Your task to perform on an android device: Show the shopping cart on amazon. Search for "asus rog" on amazon, select the first entry, add it to the cart, then select checkout. Image 0: 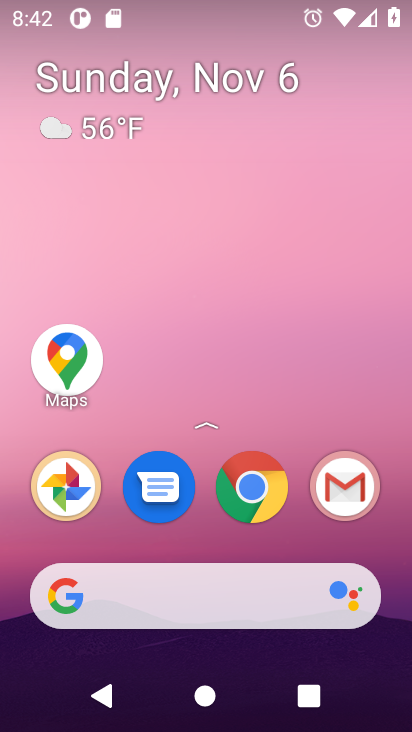
Step 0: click (230, 464)
Your task to perform on an android device: Show the shopping cart on amazon. Search for "asus rog" on amazon, select the first entry, add it to the cart, then select checkout. Image 1: 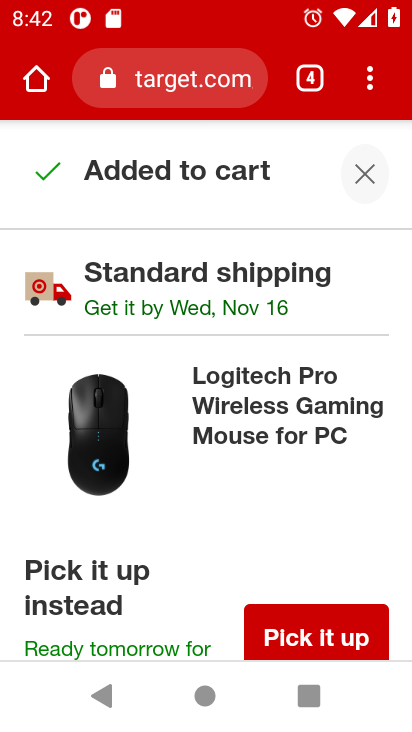
Step 1: click (189, 98)
Your task to perform on an android device: Show the shopping cart on amazon. Search for "asus rog" on amazon, select the first entry, add it to the cart, then select checkout. Image 2: 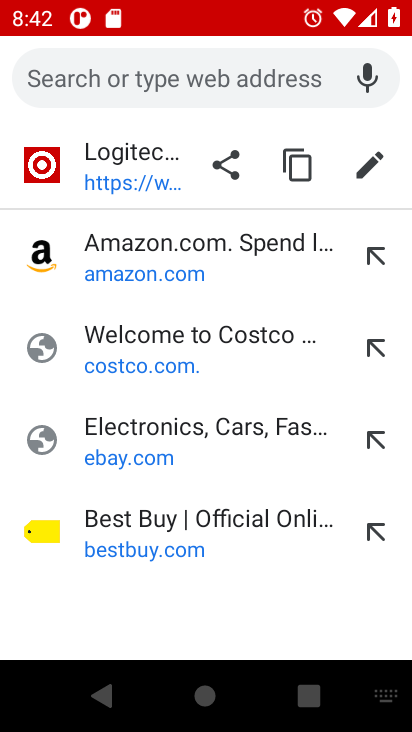
Step 2: click (112, 258)
Your task to perform on an android device: Show the shopping cart on amazon. Search for "asus rog" on amazon, select the first entry, add it to the cart, then select checkout. Image 3: 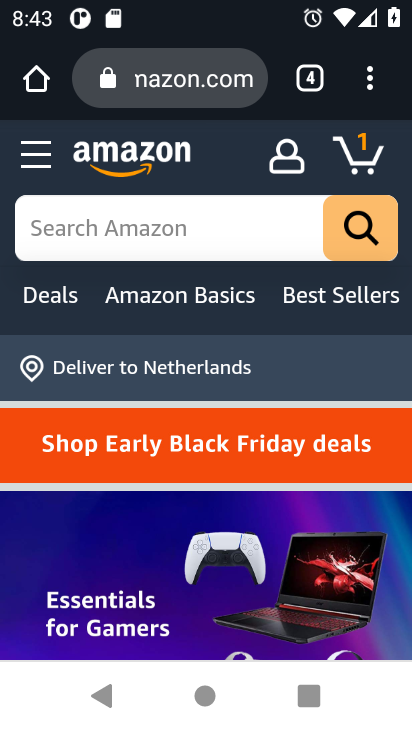
Step 3: click (372, 126)
Your task to perform on an android device: Show the shopping cart on amazon. Search for "asus rog" on amazon, select the first entry, add it to the cart, then select checkout. Image 4: 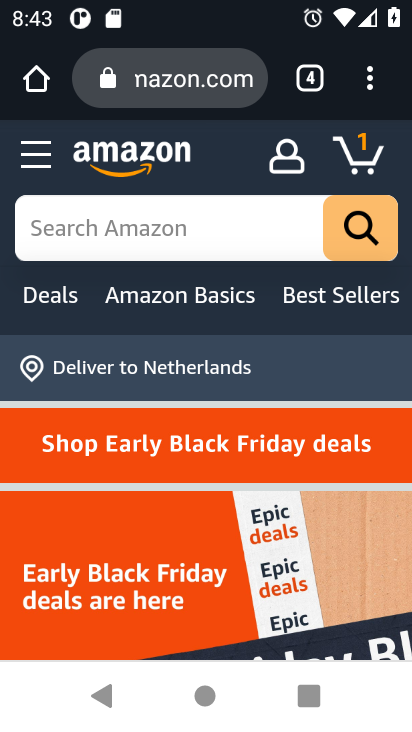
Step 4: click (344, 152)
Your task to perform on an android device: Show the shopping cart on amazon. Search for "asus rog" on amazon, select the first entry, add it to the cart, then select checkout. Image 5: 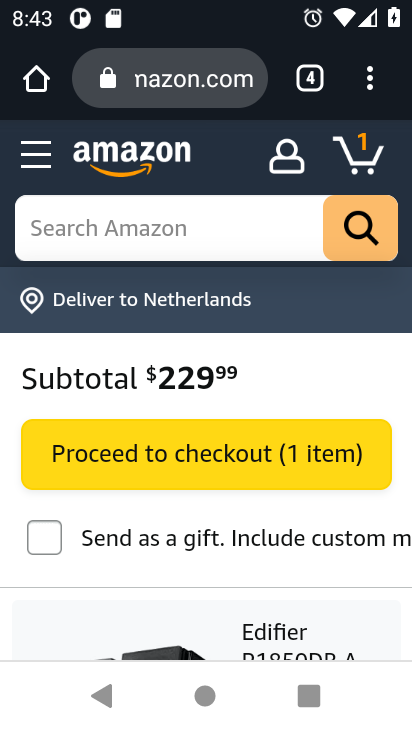
Step 5: drag from (197, 619) to (182, 215)
Your task to perform on an android device: Show the shopping cart on amazon. Search for "asus rog" on amazon, select the first entry, add it to the cart, then select checkout. Image 6: 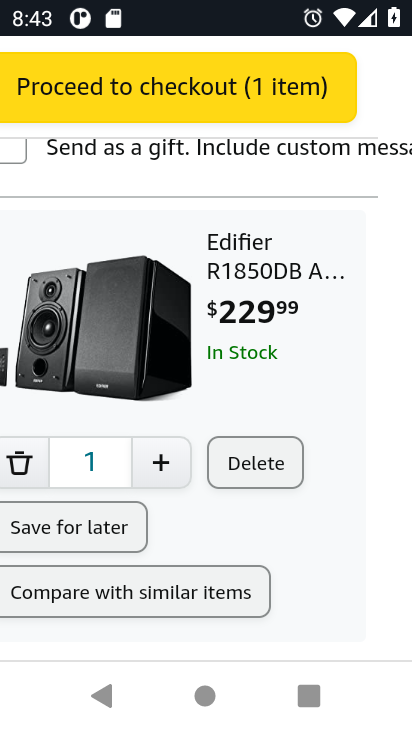
Step 6: drag from (203, 220) to (383, 556)
Your task to perform on an android device: Show the shopping cart on amazon. Search for "asus rog" on amazon, select the first entry, add it to the cart, then select checkout. Image 7: 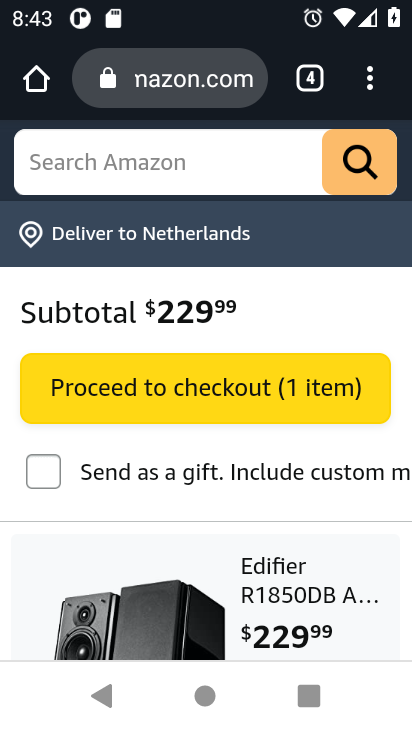
Step 7: click (187, 135)
Your task to perform on an android device: Show the shopping cart on amazon. Search for "asus rog" on amazon, select the first entry, add it to the cart, then select checkout. Image 8: 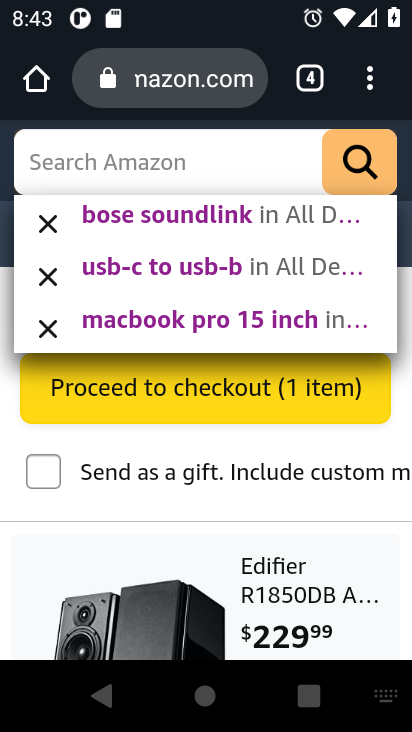
Step 8: type "asus rog"
Your task to perform on an android device: Show the shopping cart on amazon. Search for "asus rog" on amazon, select the first entry, add it to the cart, then select checkout. Image 9: 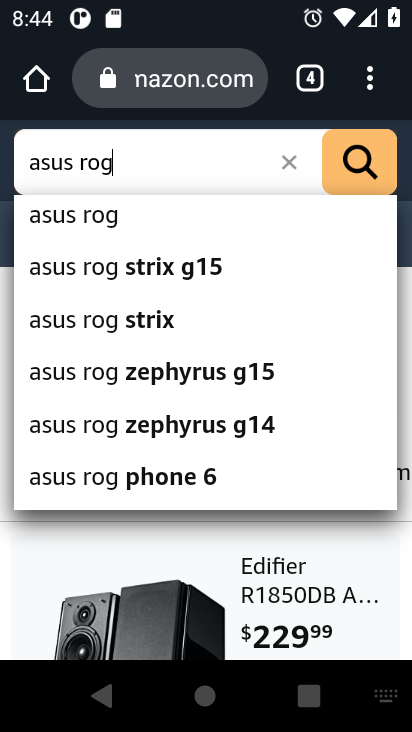
Step 9: click (374, 154)
Your task to perform on an android device: Show the shopping cart on amazon. Search for "asus rog" on amazon, select the first entry, add it to the cart, then select checkout. Image 10: 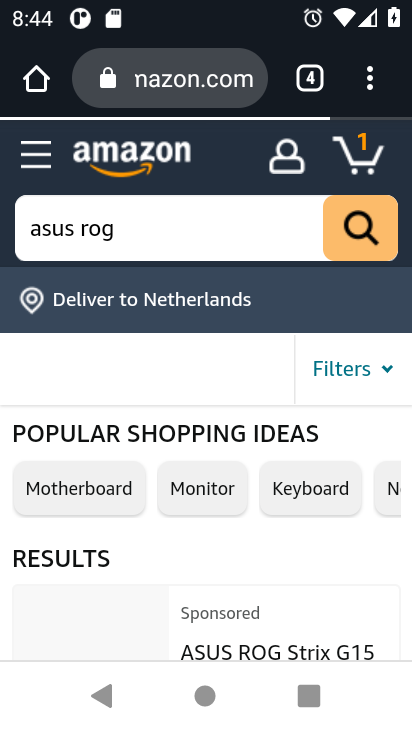
Step 10: click (374, 154)
Your task to perform on an android device: Show the shopping cart on amazon. Search for "asus rog" on amazon, select the first entry, add it to the cart, then select checkout. Image 11: 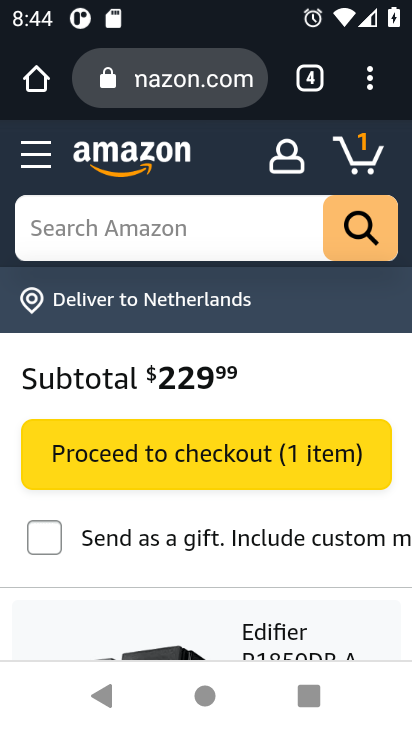
Step 11: drag from (195, 584) to (225, 127)
Your task to perform on an android device: Show the shopping cart on amazon. Search for "asus rog" on amazon, select the first entry, add it to the cart, then select checkout. Image 12: 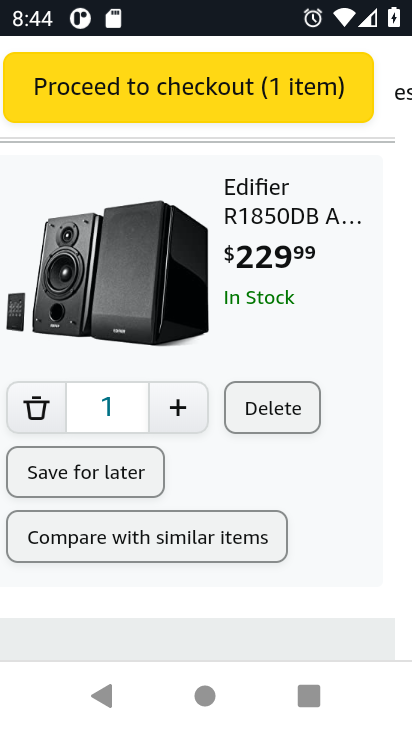
Step 12: drag from (275, 186) to (385, 701)
Your task to perform on an android device: Show the shopping cart on amazon. Search for "asus rog" on amazon, select the first entry, add it to the cart, then select checkout. Image 13: 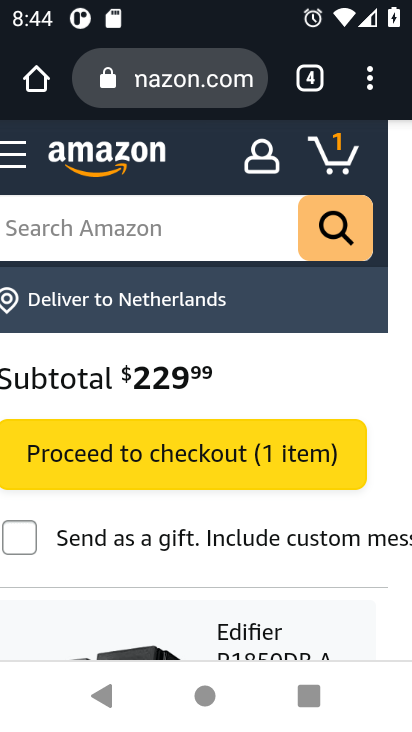
Step 13: click (131, 213)
Your task to perform on an android device: Show the shopping cart on amazon. Search for "asus rog" on amazon, select the first entry, add it to the cart, then select checkout. Image 14: 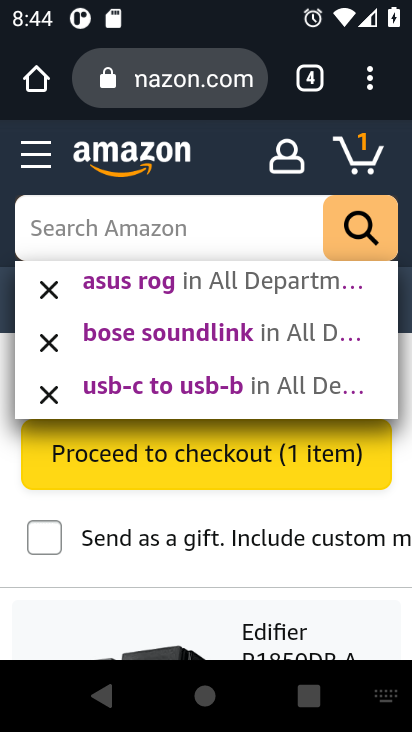
Step 14: click (336, 283)
Your task to perform on an android device: Show the shopping cart on amazon. Search for "asus rog" on amazon, select the first entry, add it to the cart, then select checkout. Image 15: 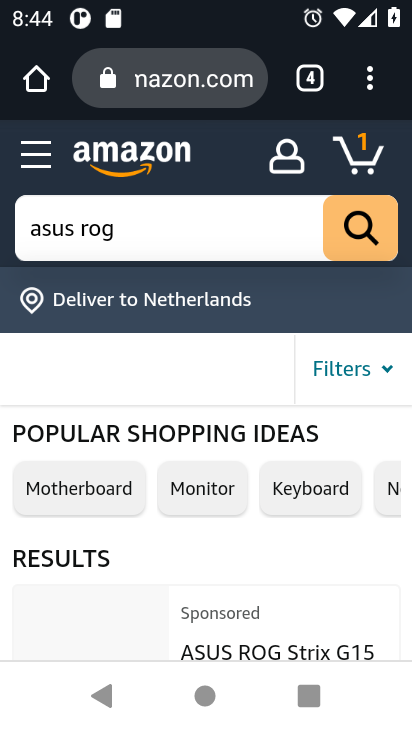
Step 15: click (355, 210)
Your task to perform on an android device: Show the shopping cart on amazon. Search for "asus rog" on amazon, select the first entry, add it to the cart, then select checkout. Image 16: 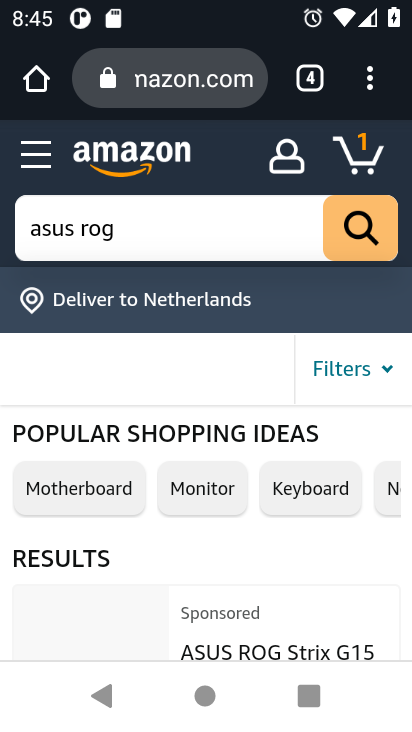
Step 16: drag from (175, 574) to (176, 49)
Your task to perform on an android device: Show the shopping cart on amazon. Search for "asus rog" on amazon, select the first entry, add it to the cart, then select checkout. Image 17: 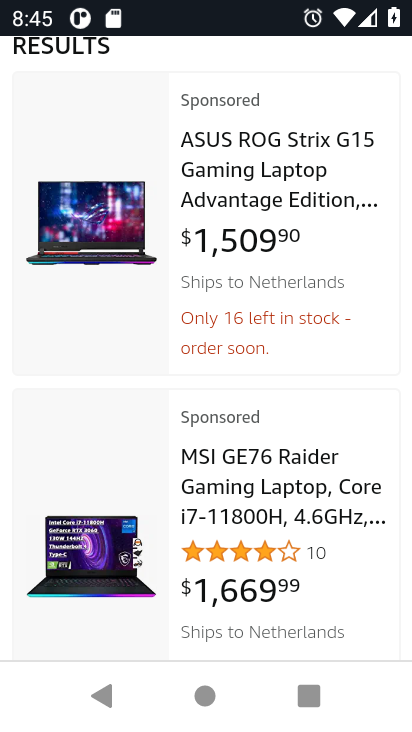
Step 17: click (199, 128)
Your task to perform on an android device: Show the shopping cart on amazon. Search for "asus rog" on amazon, select the first entry, add it to the cart, then select checkout. Image 18: 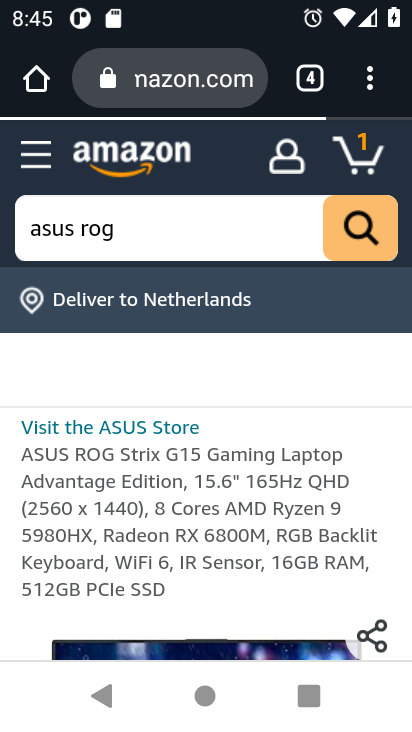
Step 18: drag from (165, 614) to (223, 75)
Your task to perform on an android device: Show the shopping cart on amazon. Search for "asus rog" on amazon, select the first entry, add it to the cart, then select checkout. Image 19: 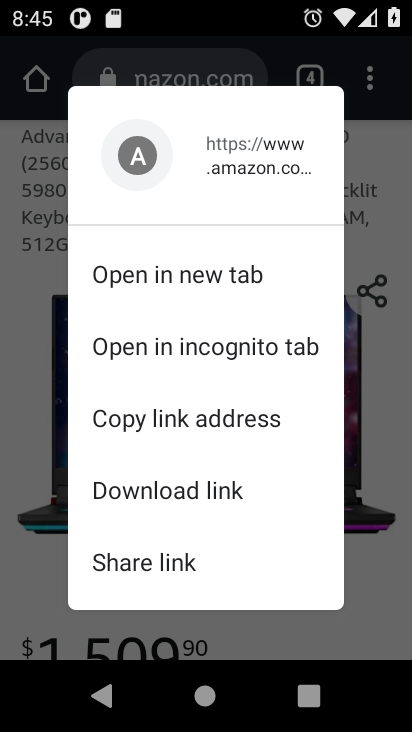
Step 19: click (23, 590)
Your task to perform on an android device: Show the shopping cart on amazon. Search for "asus rog" on amazon, select the first entry, add it to the cart, then select checkout. Image 20: 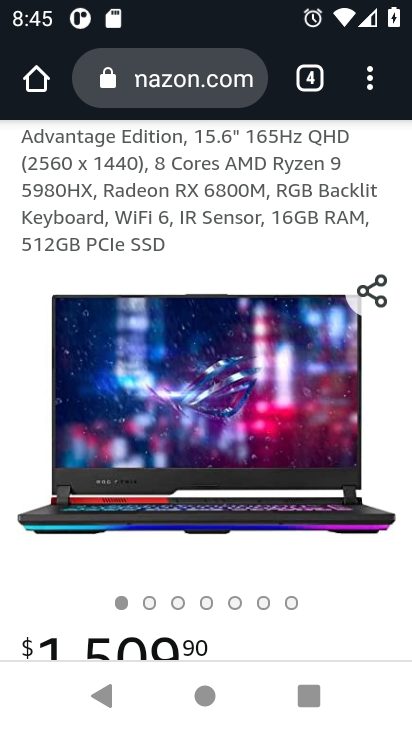
Step 20: drag from (81, 620) to (139, 184)
Your task to perform on an android device: Show the shopping cart on amazon. Search for "asus rog" on amazon, select the first entry, add it to the cart, then select checkout. Image 21: 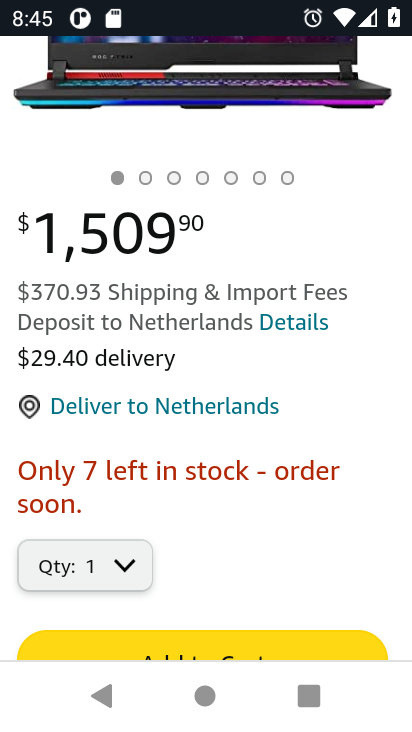
Step 21: drag from (172, 574) to (274, 165)
Your task to perform on an android device: Show the shopping cart on amazon. Search for "asus rog" on amazon, select the first entry, add it to the cart, then select checkout. Image 22: 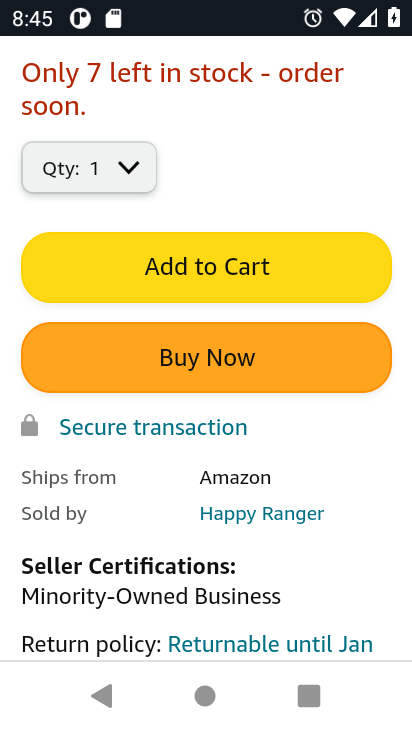
Step 22: click (229, 279)
Your task to perform on an android device: Show the shopping cart on amazon. Search for "asus rog" on amazon, select the first entry, add it to the cart, then select checkout. Image 23: 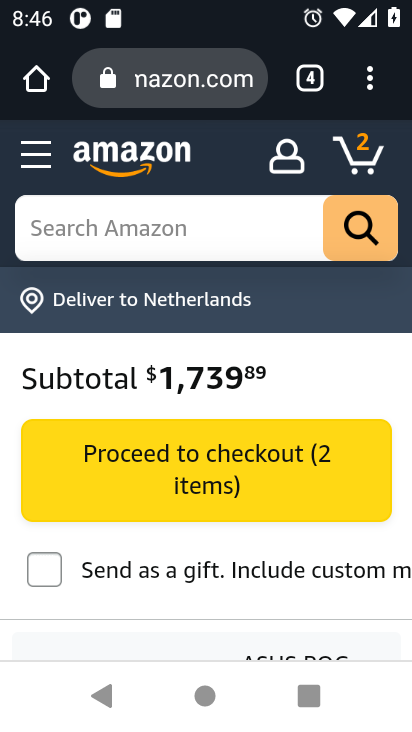
Step 23: drag from (128, 583) to (149, 129)
Your task to perform on an android device: Show the shopping cart on amazon. Search for "asus rog" on amazon, select the first entry, add it to the cart, then select checkout. Image 24: 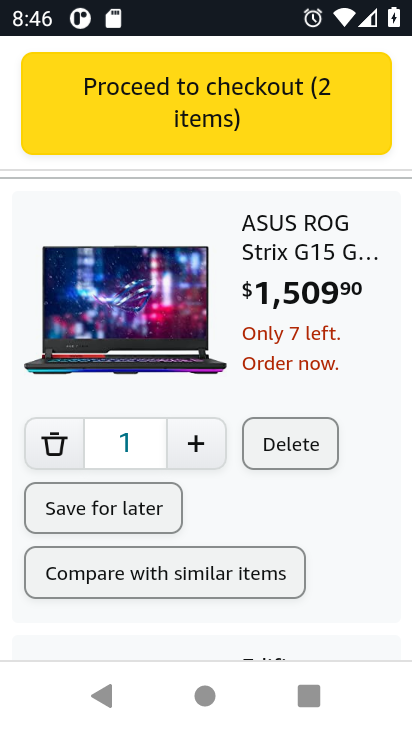
Step 24: click (213, 69)
Your task to perform on an android device: Show the shopping cart on amazon. Search for "asus rog" on amazon, select the first entry, add it to the cart, then select checkout. Image 25: 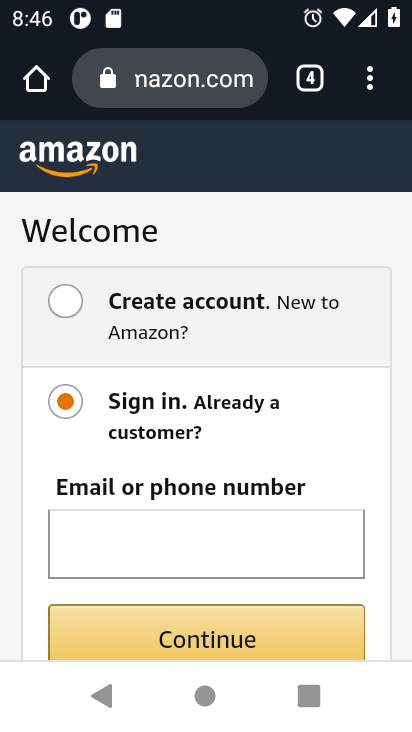
Step 25: task complete